Your task to perform on an android device: Go to internet settings Image 0: 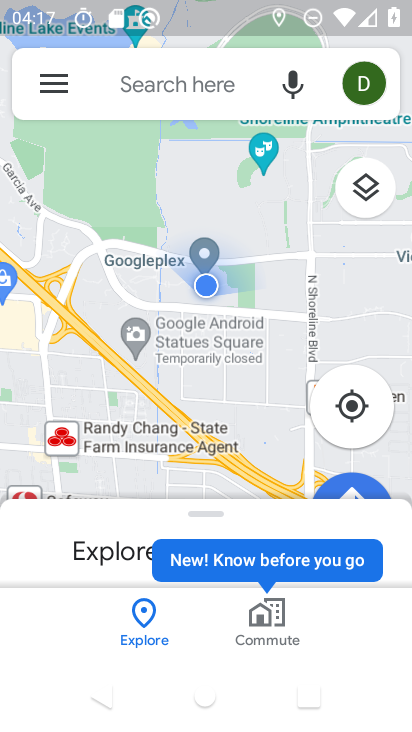
Step 0: press home button
Your task to perform on an android device: Go to internet settings Image 1: 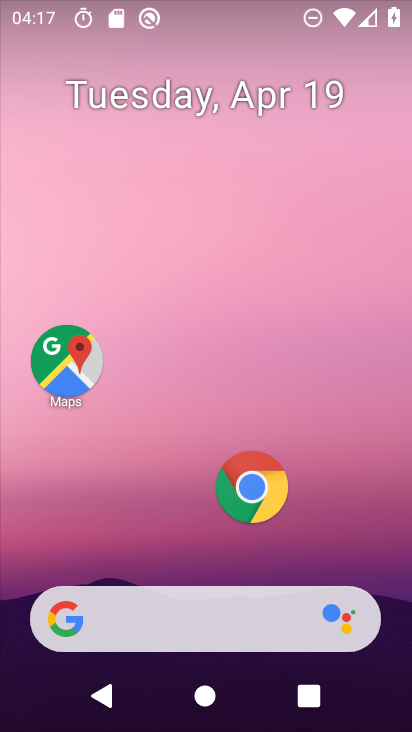
Step 1: drag from (190, 474) to (290, 38)
Your task to perform on an android device: Go to internet settings Image 2: 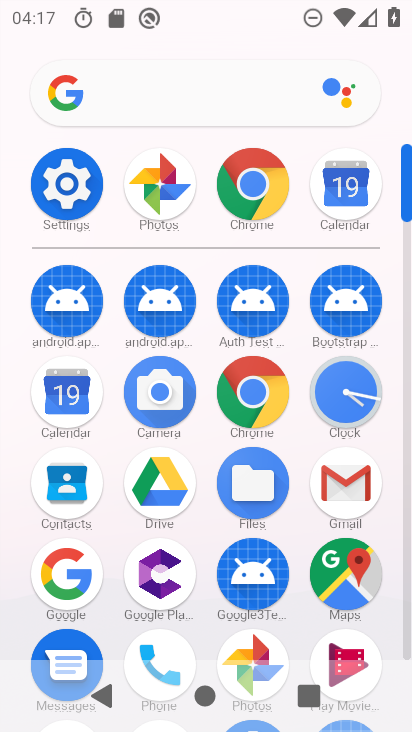
Step 2: click (59, 192)
Your task to perform on an android device: Go to internet settings Image 3: 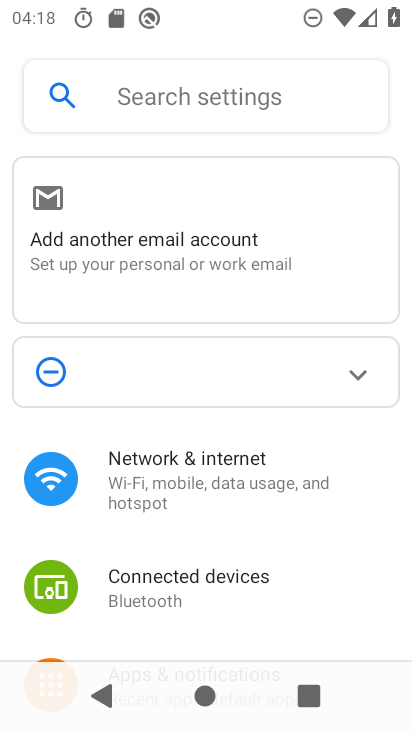
Step 3: click (199, 473)
Your task to perform on an android device: Go to internet settings Image 4: 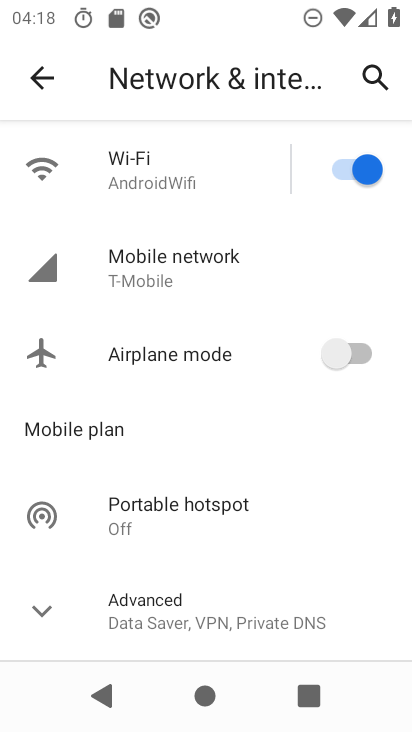
Step 4: task complete